Your task to perform on an android device: Search for vegetarian restaurants on Maps Image 0: 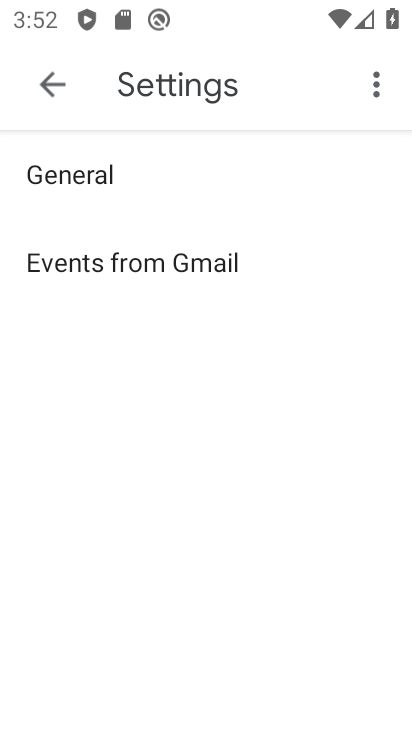
Step 0: press home button
Your task to perform on an android device: Search for vegetarian restaurants on Maps Image 1: 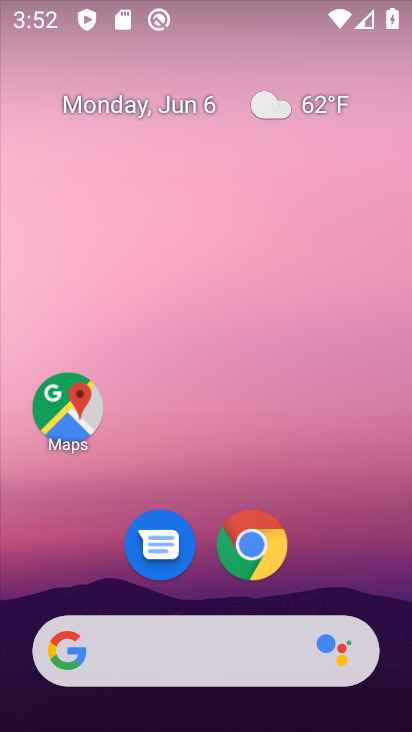
Step 1: drag from (235, 711) to (227, 160)
Your task to perform on an android device: Search for vegetarian restaurants on Maps Image 2: 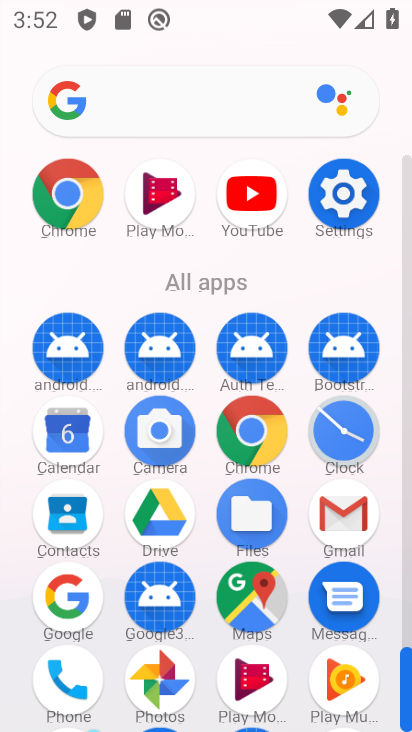
Step 2: click (249, 595)
Your task to perform on an android device: Search for vegetarian restaurants on Maps Image 3: 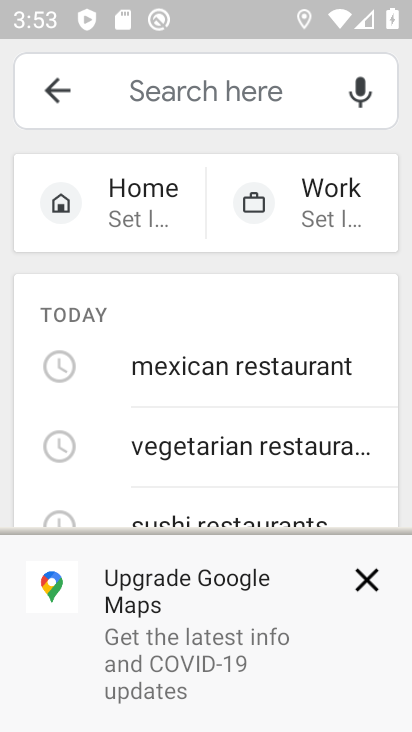
Step 3: type "vegetarian restaurants"
Your task to perform on an android device: Search for vegetarian restaurants on Maps Image 4: 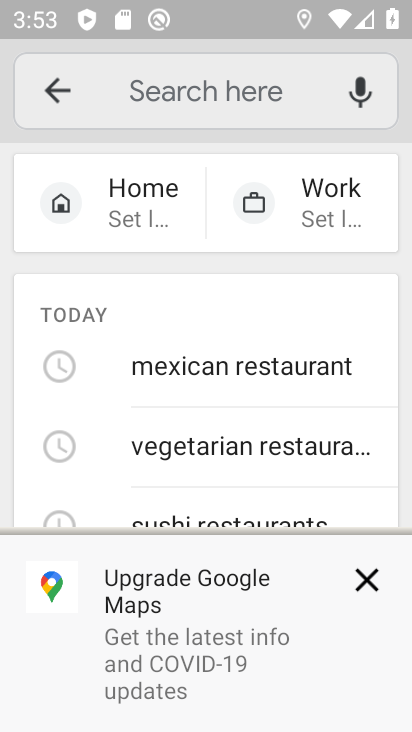
Step 4: click (221, 92)
Your task to perform on an android device: Search for vegetarian restaurants on Maps Image 5: 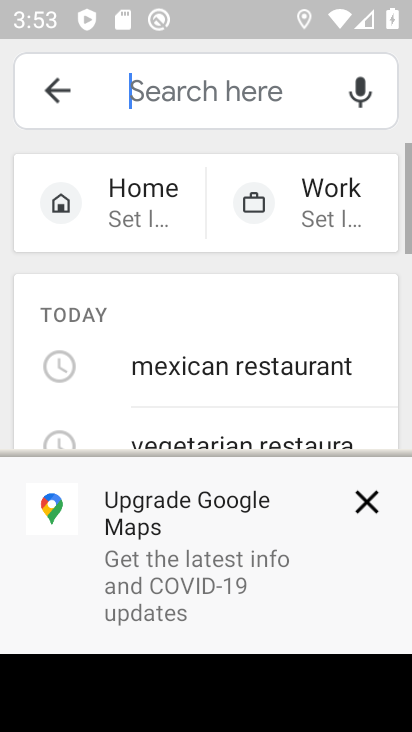
Step 5: type "vegetarian restaurants"
Your task to perform on an android device: Search for vegetarian restaurants on Maps Image 6: 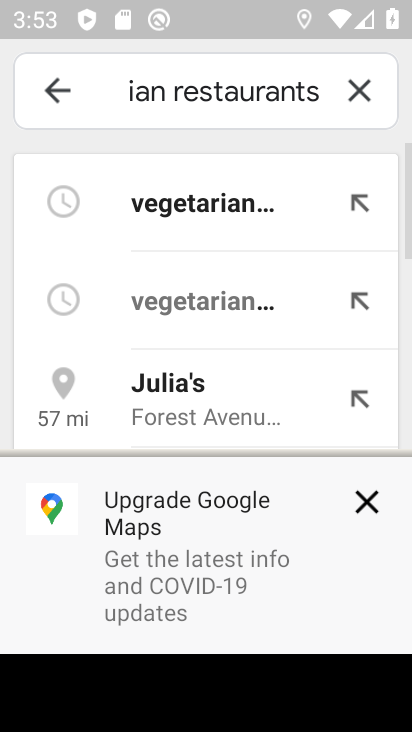
Step 6: click (178, 209)
Your task to perform on an android device: Search for vegetarian restaurants on Maps Image 7: 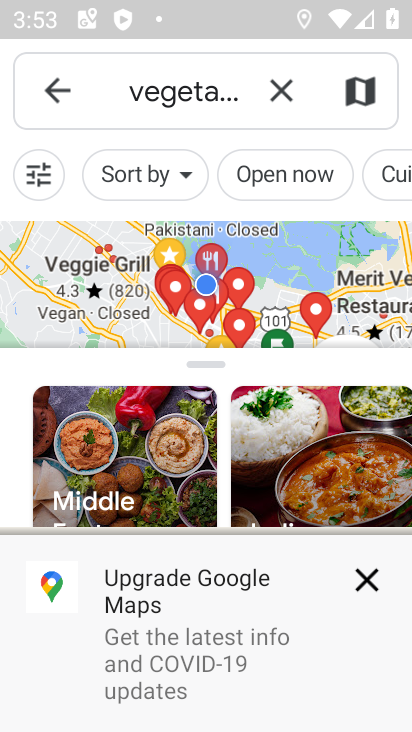
Step 7: task complete